Your task to perform on an android device: clear all cookies in the chrome app Image 0: 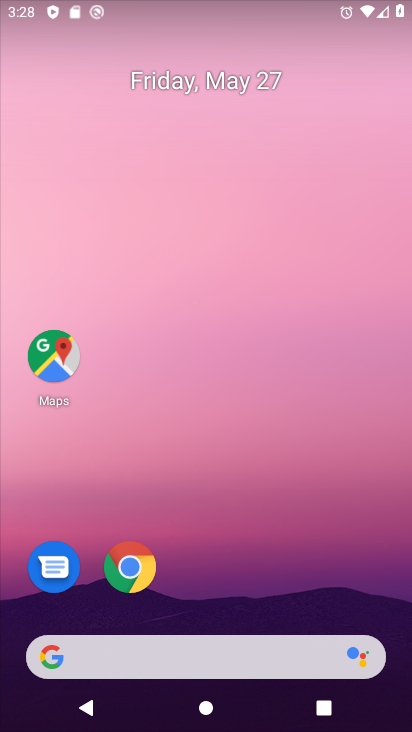
Step 0: click (131, 568)
Your task to perform on an android device: clear all cookies in the chrome app Image 1: 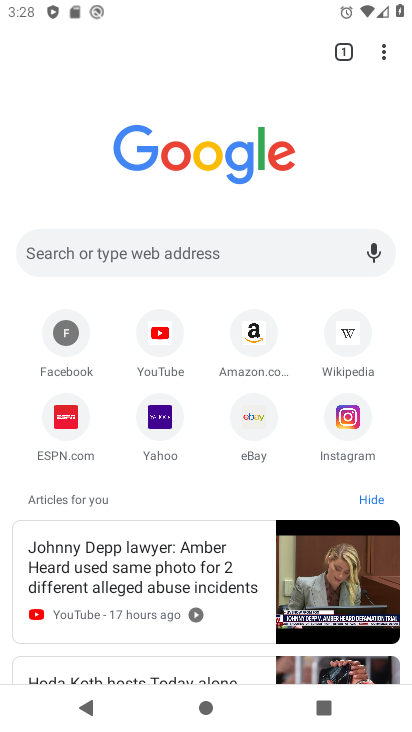
Step 1: click (379, 59)
Your task to perform on an android device: clear all cookies in the chrome app Image 2: 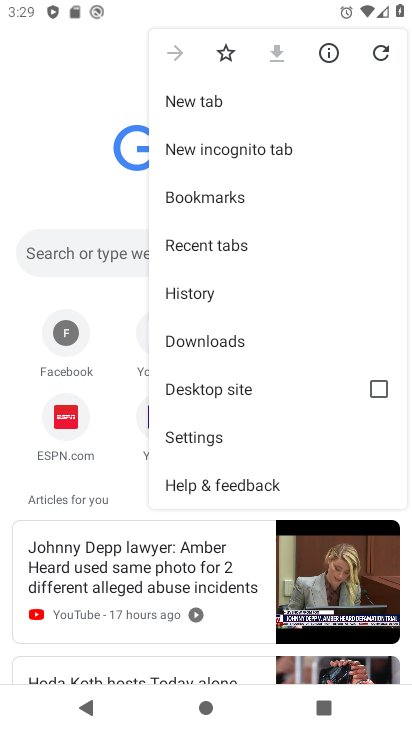
Step 2: click (203, 285)
Your task to perform on an android device: clear all cookies in the chrome app Image 3: 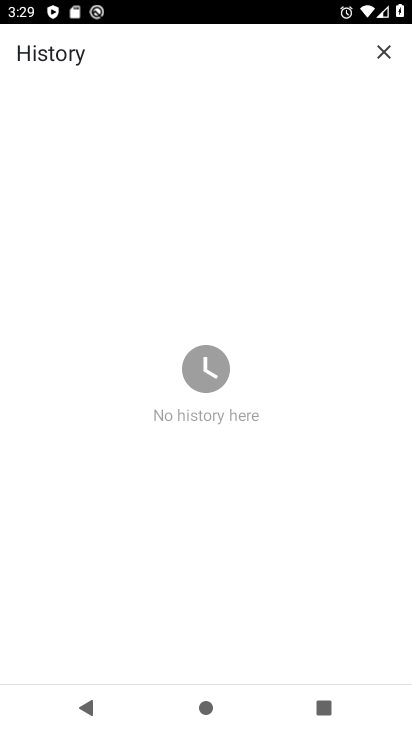
Step 3: task complete